Your task to perform on an android device: Go to calendar. Show me events next week Image 0: 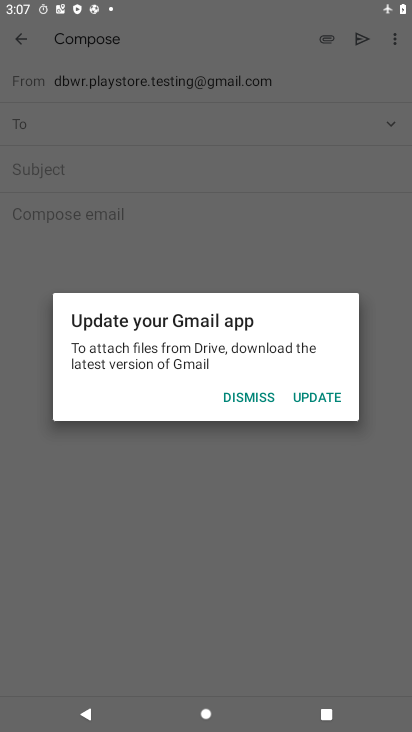
Step 0: press home button
Your task to perform on an android device: Go to calendar. Show me events next week Image 1: 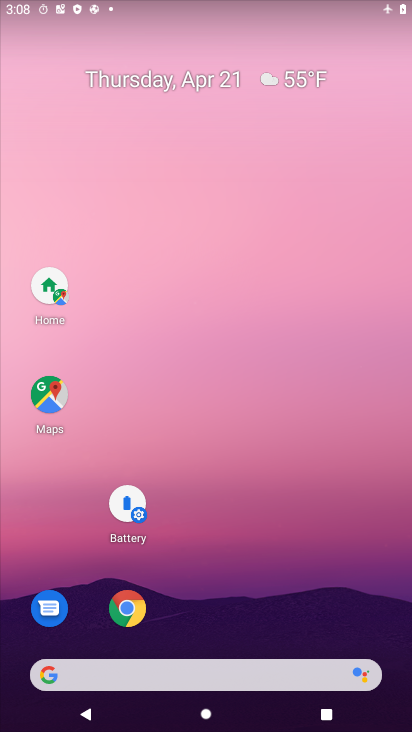
Step 1: drag from (278, 516) to (347, 17)
Your task to perform on an android device: Go to calendar. Show me events next week Image 2: 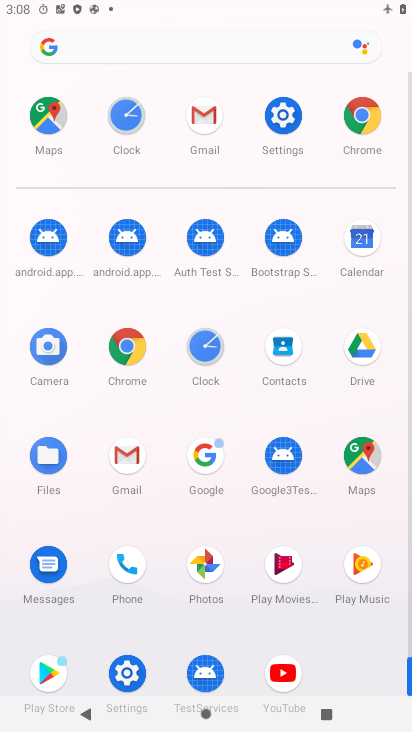
Step 2: click (367, 242)
Your task to perform on an android device: Go to calendar. Show me events next week Image 3: 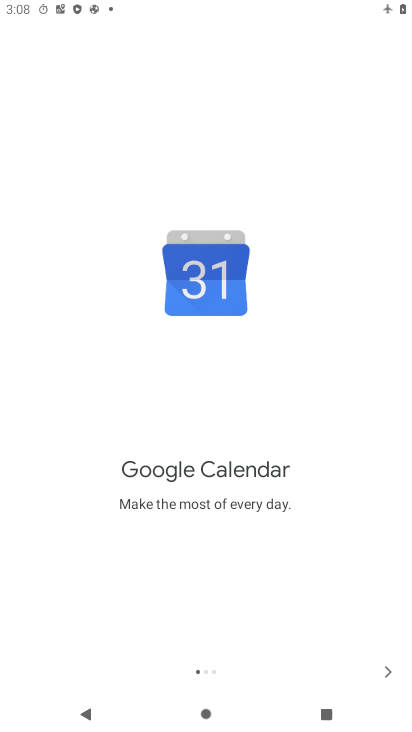
Step 3: click (397, 674)
Your task to perform on an android device: Go to calendar. Show me events next week Image 4: 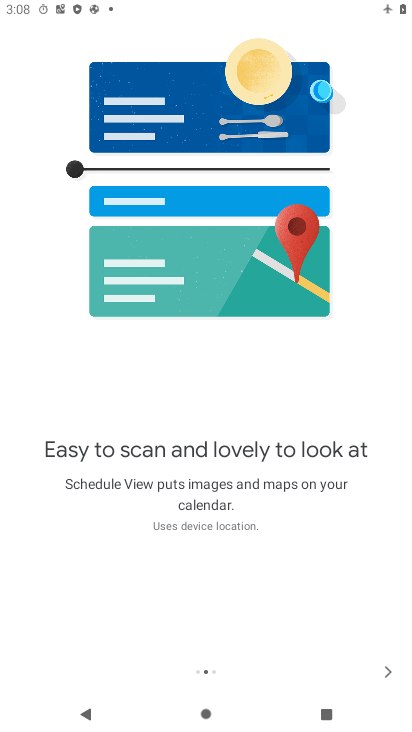
Step 4: click (394, 675)
Your task to perform on an android device: Go to calendar. Show me events next week Image 5: 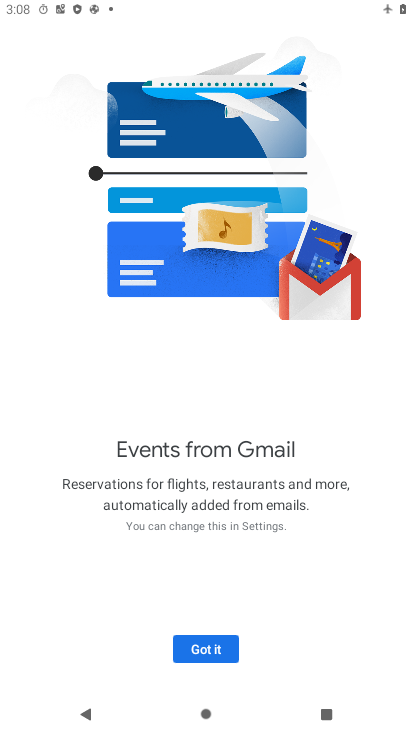
Step 5: click (213, 644)
Your task to perform on an android device: Go to calendar. Show me events next week Image 6: 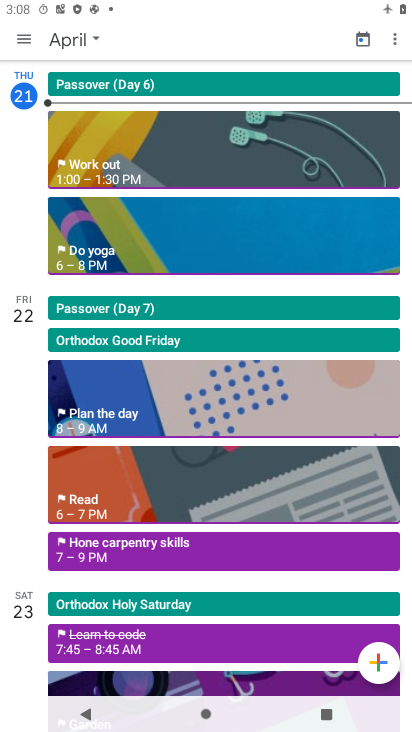
Step 6: click (82, 35)
Your task to perform on an android device: Go to calendar. Show me events next week Image 7: 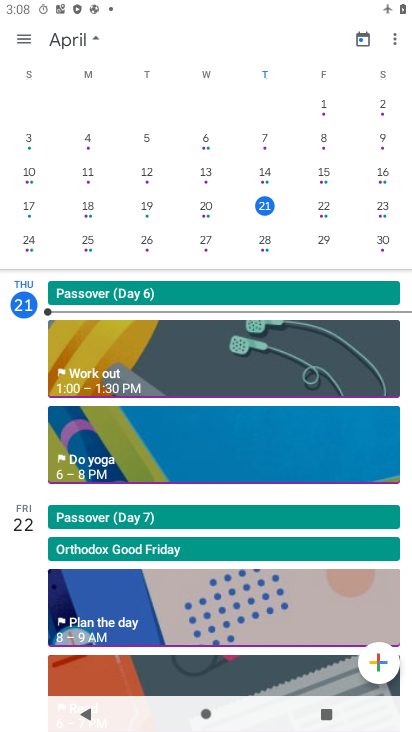
Step 7: click (263, 241)
Your task to perform on an android device: Go to calendar. Show me events next week Image 8: 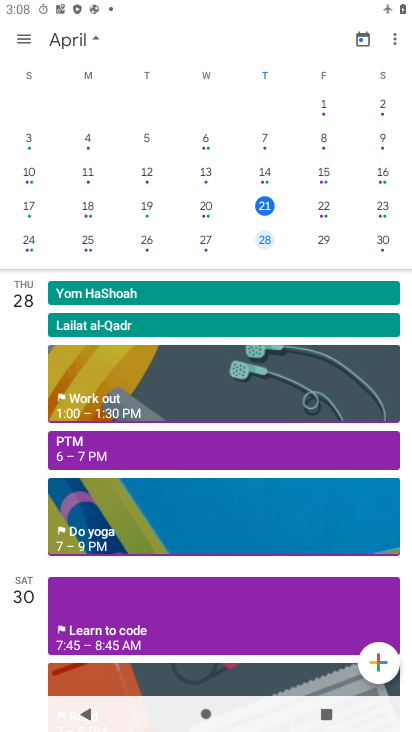
Step 8: task complete